Your task to perform on an android device: clear all cookies in the chrome app Image 0: 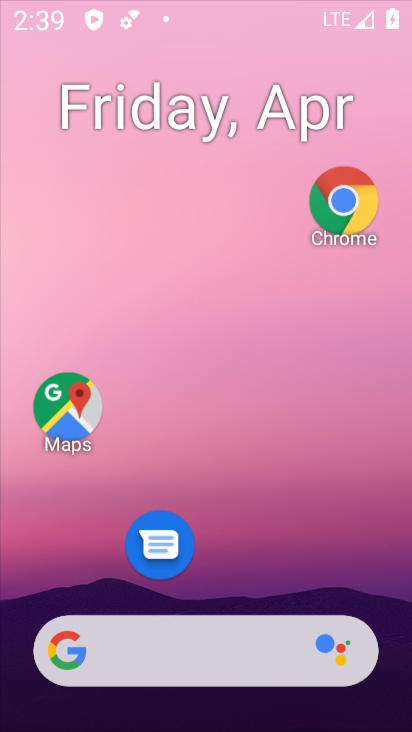
Step 0: click (305, 208)
Your task to perform on an android device: clear all cookies in the chrome app Image 1: 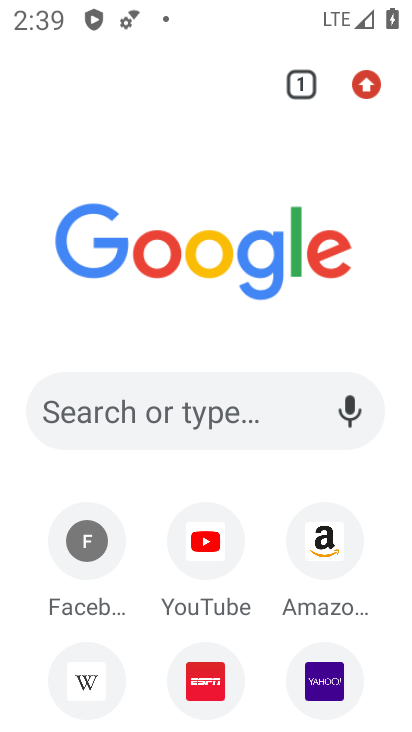
Step 1: click (365, 84)
Your task to perform on an android device: clear all cookies in the chrome app Image 2: 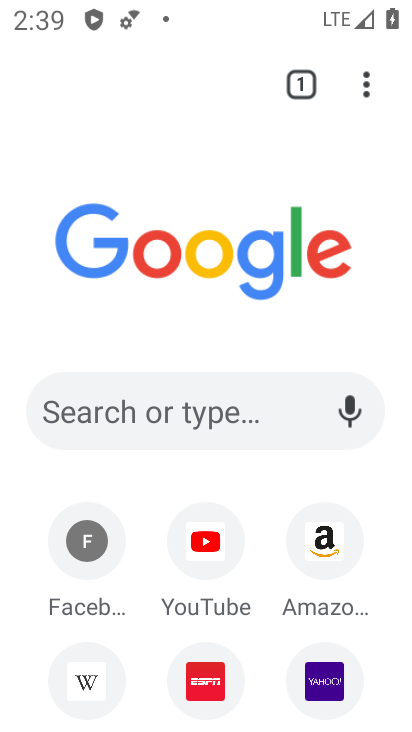
Step 2: click (367, 100)
Your task to perform on an android device: clear all cookies in the chrome app Image 3: 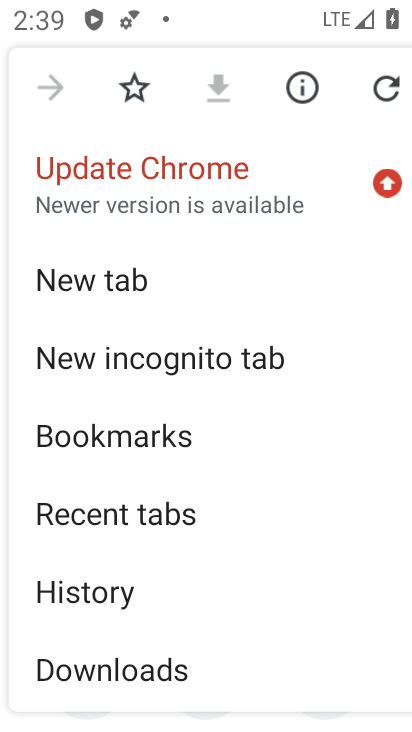
Step 3: click (96, 587)
Your task to perform on an android device: clear all cookies in the chrome app Image 4: 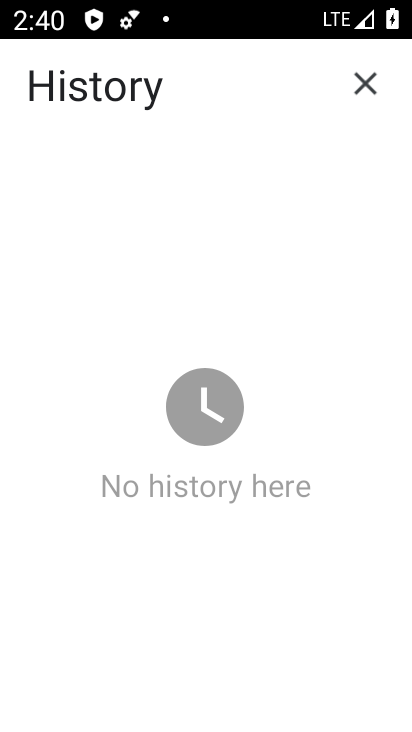
Step 4: task complete